Your task to perform on an android device: change the clock display to digital Image 0: 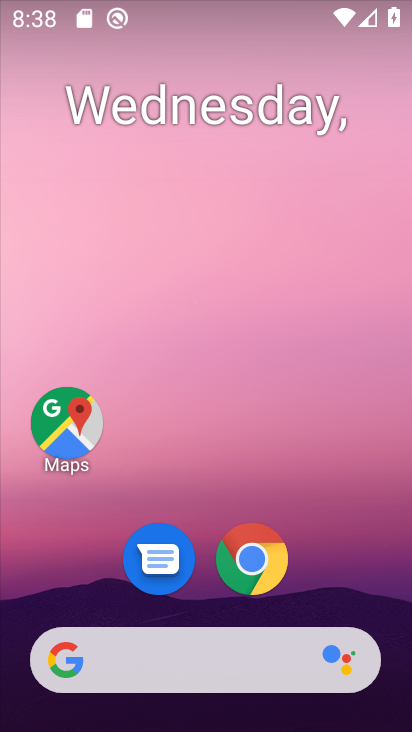
Step 0: drag from (348, 575) to (353, 152)
Your task to perform on an android device: change the clock display to digital Image 1: 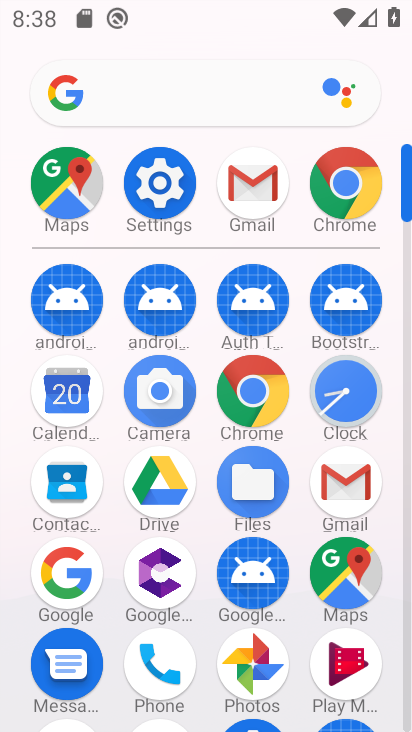
Step 1: click (350, 413)
Your task to perform on an android device: change the clock display to digital Image 2: 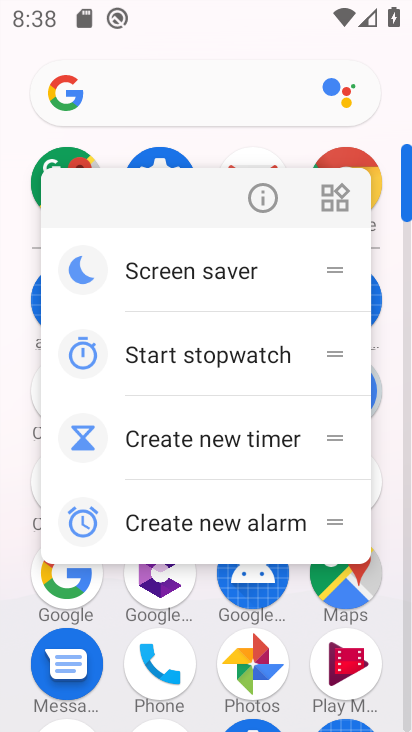
Step 2: click (393, 433)
Your task to perform on an android device: change the clock display to digital Image 3: 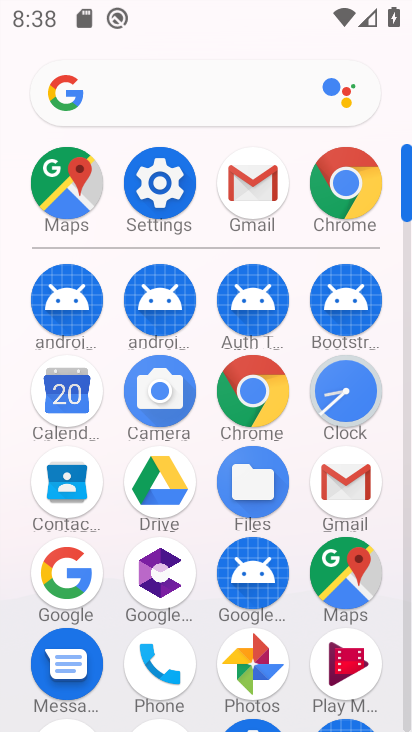
Step 3: click (345, 407)
Your task to perform on an android device: change the clock display to digital Image 4: 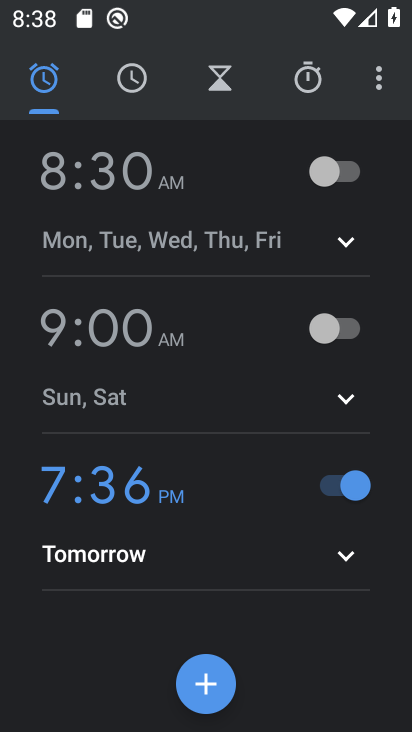
Step 4: click (380, 90)
Your task to perform on an android device: change the clock display to digital Image 5: 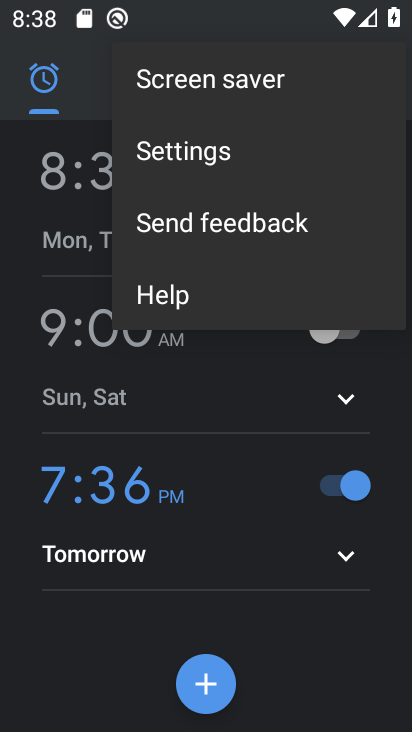
Step 5: click (210, 164)
Your task to perform on an android device: change the clock display to digital Image 6: 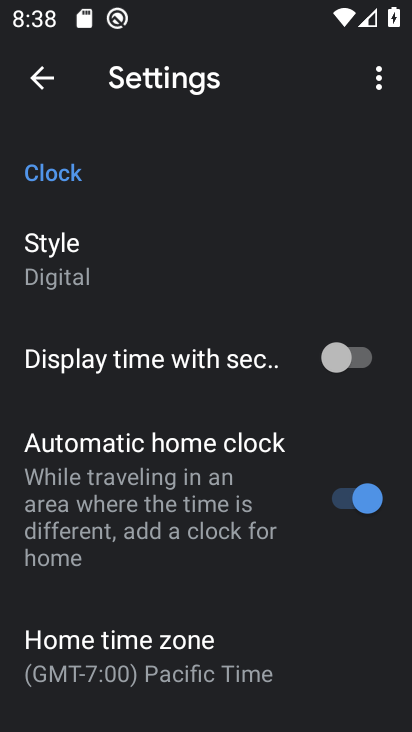
Step 6: task complete